Your task to perform on an android device: Open the web browser Image 0: 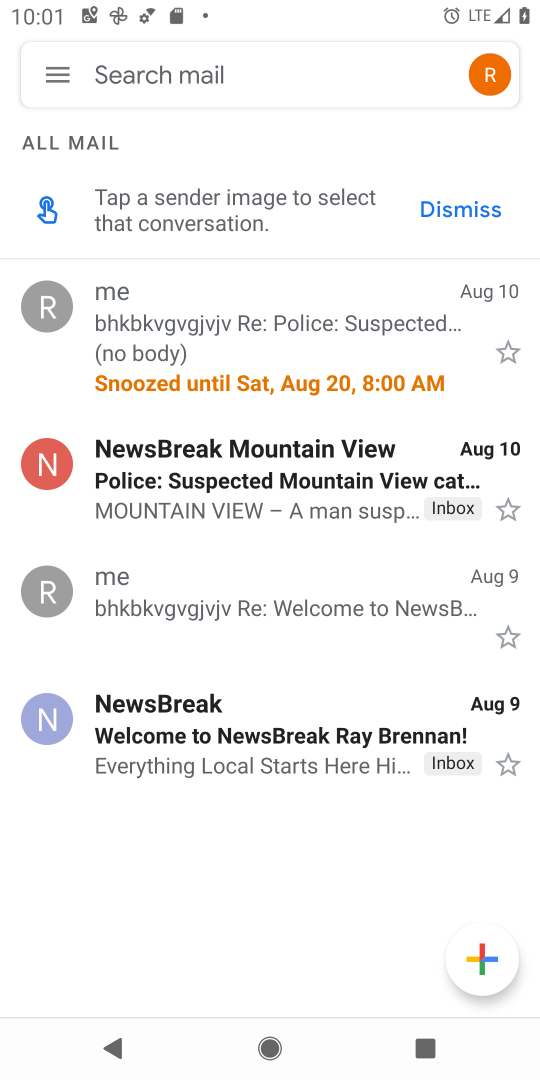
Step 0: press home button
Your task to perform on an android device: Open the web browser Image 1: 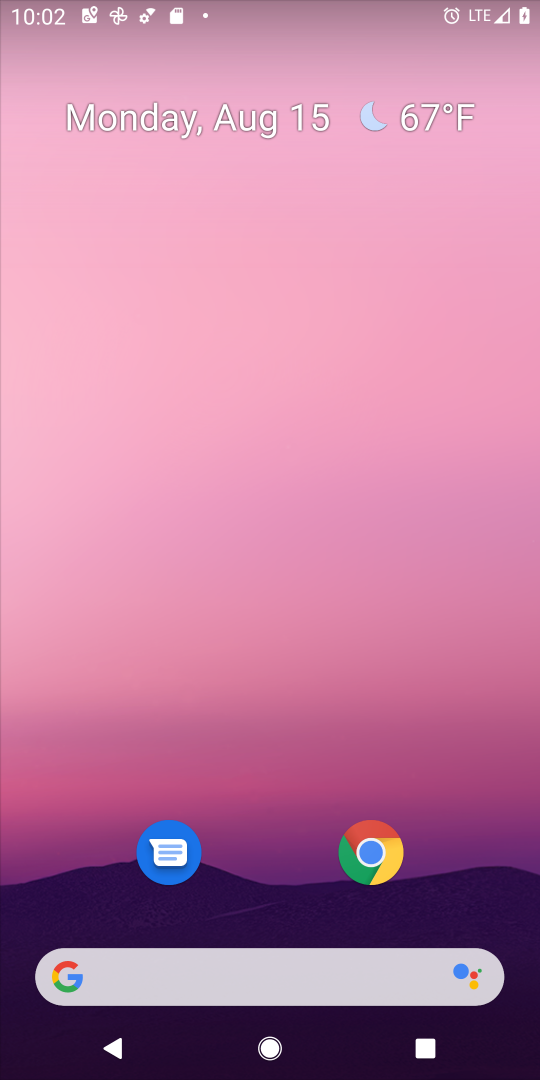
Step 1: click (371, 852)
Your task to perform on an android device: Open the web browser Image 2: 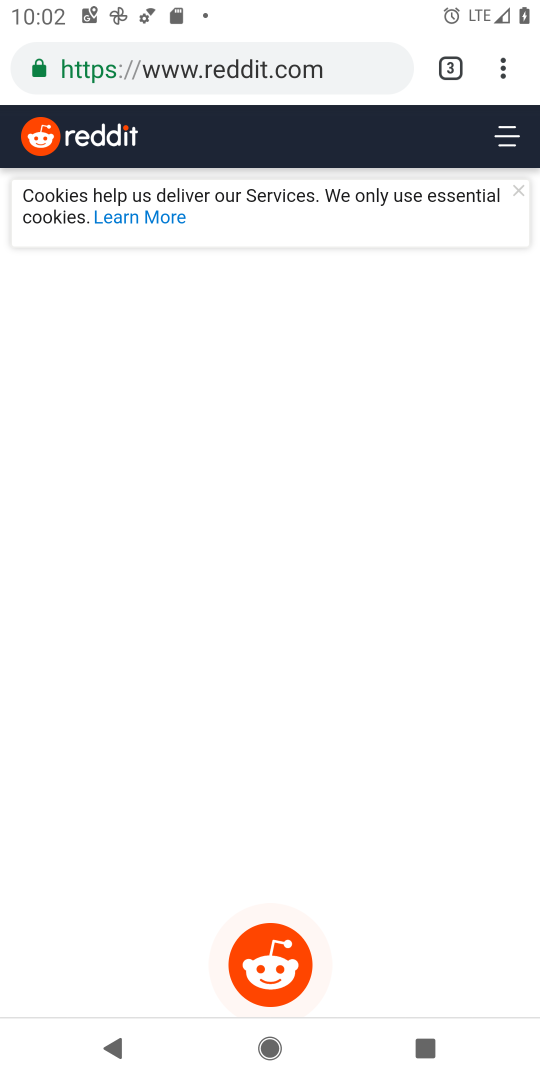
Step 2: task complete